Your task to perform on an android device: open a bookmark in the chrome app Image 0: 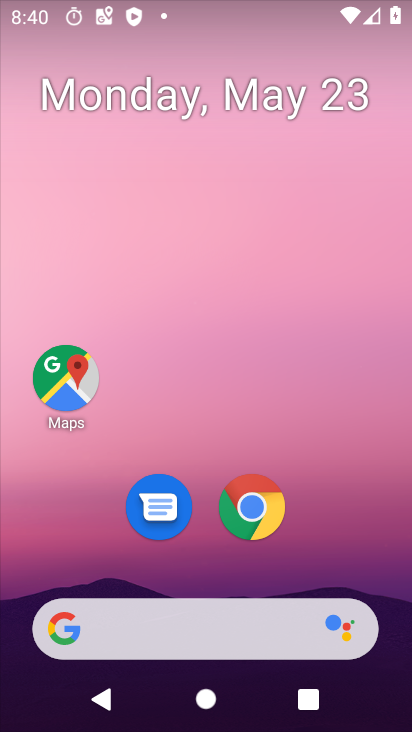
Step 0: drag from (353, 510) to (352, 2)
Your task to perform on an android device: open a bookmark in the chrome app Image 1: 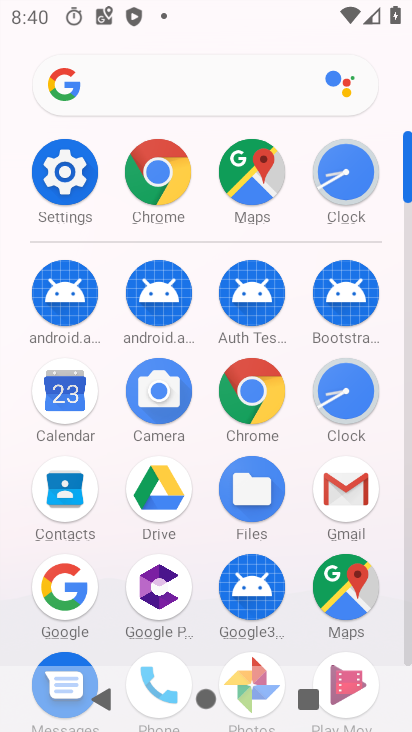
Step 1: click (148, 185)
Your task to perform on an android device: open a bookmark in the chrome app Image 2: 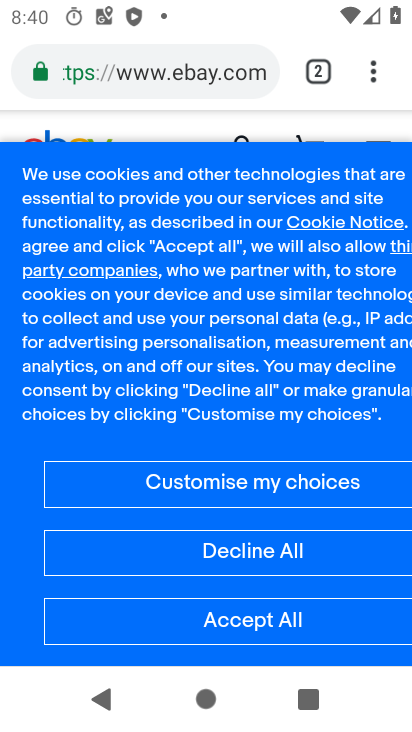
Step 2: drag from (373, 58) to (165, 276)
Your task to perform on an android device: open a bookmark in the chrome app Image 3: 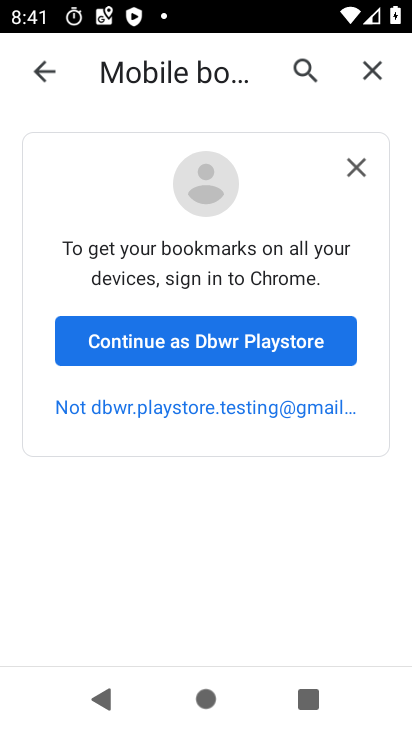
Step 3: click (156, 341)
Your task to perform on an android device: open a bookmark in the chrome app Image 4: 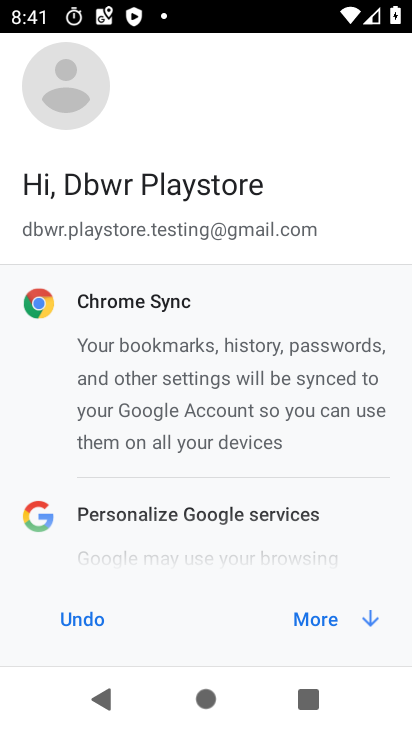
Step 4: click (315, 618)
Your task to perform on an android device: open a bookmark in the chrome app Image 5: 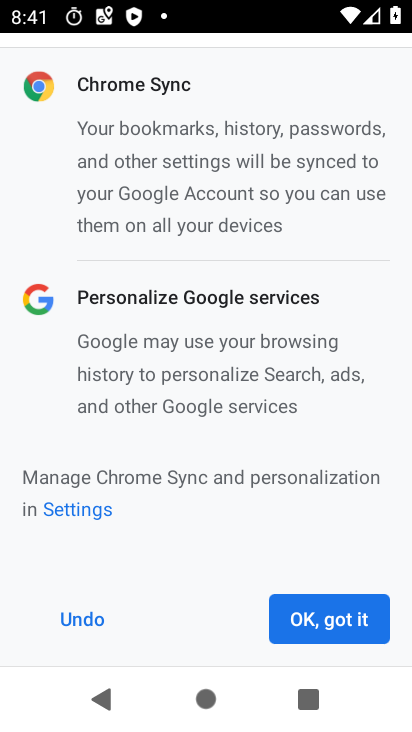
Step 5: click (315, 618)
Your task to perform on an android device: open a bookmark in the chrome app Image 6: 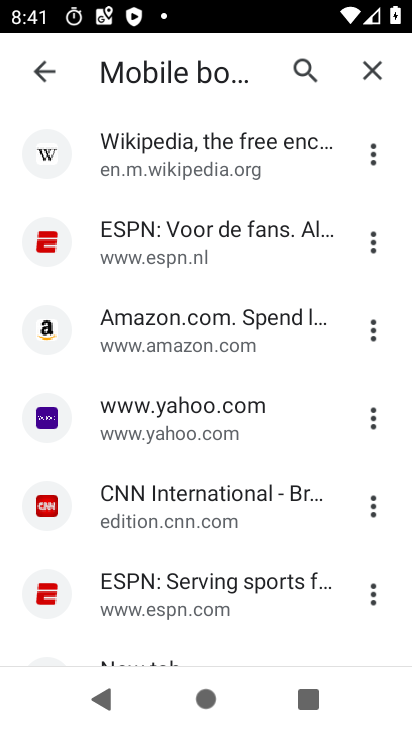
Step 6: task complete